Your task to perform on an android device: Open calendar and show me the fourth week of next month Image 0: 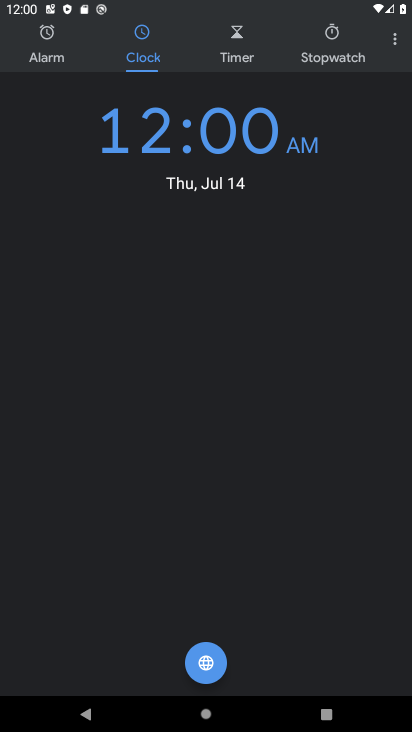
Step 0: press home button
Your task to perform on an android device: Open calendar and show me the fourth week of next month Image 1: 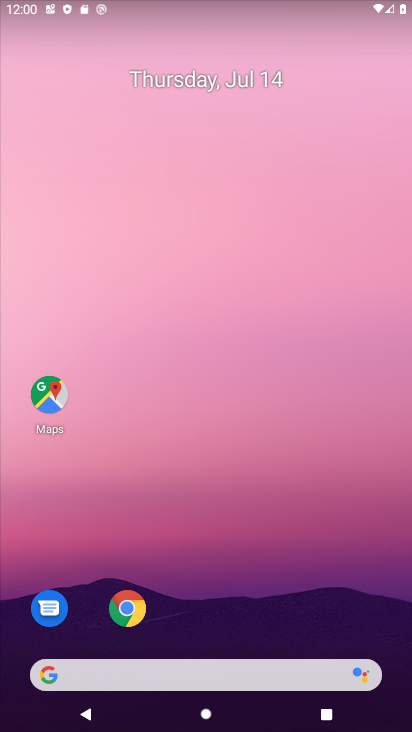
Step 1: drag from (130, 642) to (279, 110)
Your task to perform on an android device: Open calendar and show me the fourth week of next month Image 2: 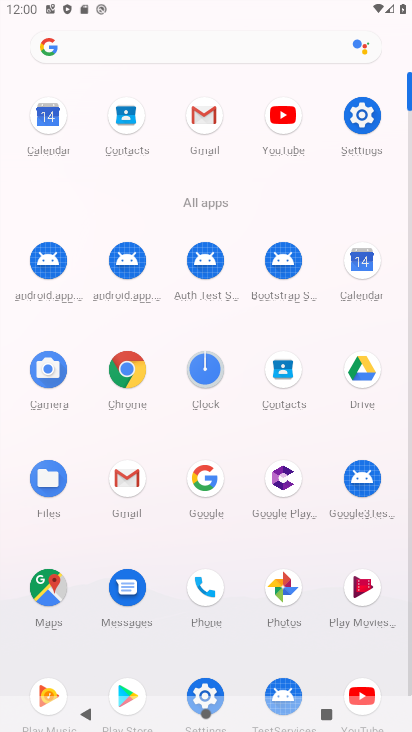
Step 2: click (354, 272)
Your task to perform on an android device: Open calendar and show me the fourth week of next month Image 3: 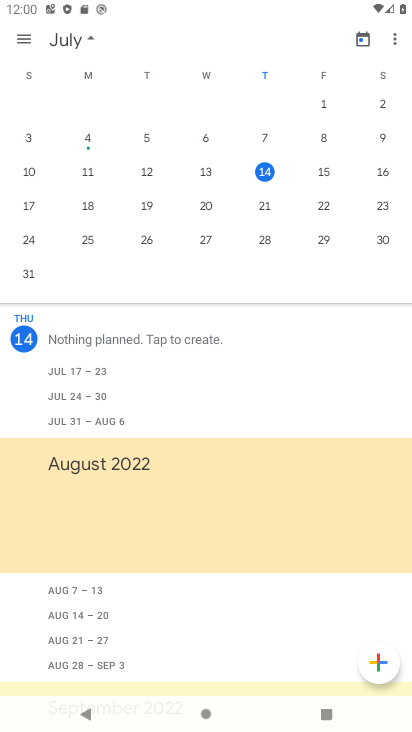
Step 3: drag from (321, 133) to (11, 369)
Your task to perform on an android device: Open calendar and show me the fourth week of next month Image 4: 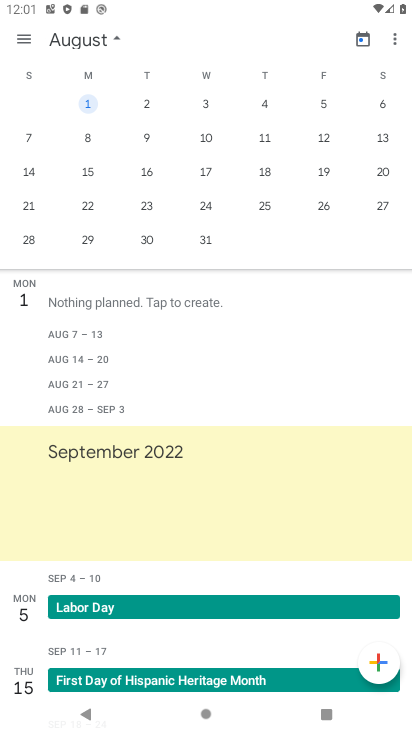
Step 4: click (27, 203)
Your task to perform on an android device: Open calendar and show me the fourth week of next month Image 5: 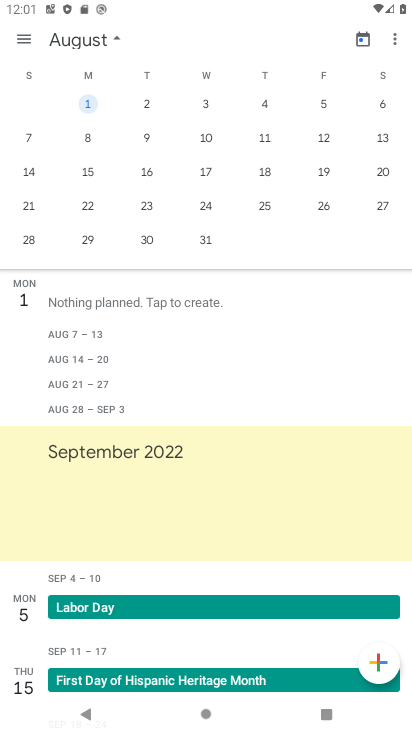
Step 5: click (26, 205)
Your task to perform on an android device: Open calendar and show me the fourth week of next month Image 6: 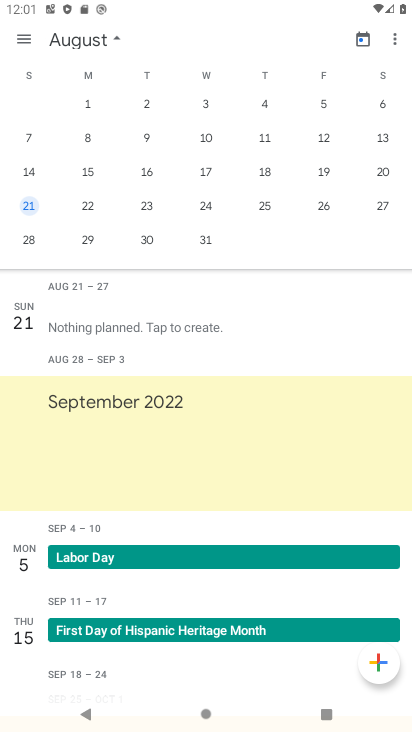
Step 6: task complete